Your task to perform on an android device: allow cookies in the chrome app Image 0: 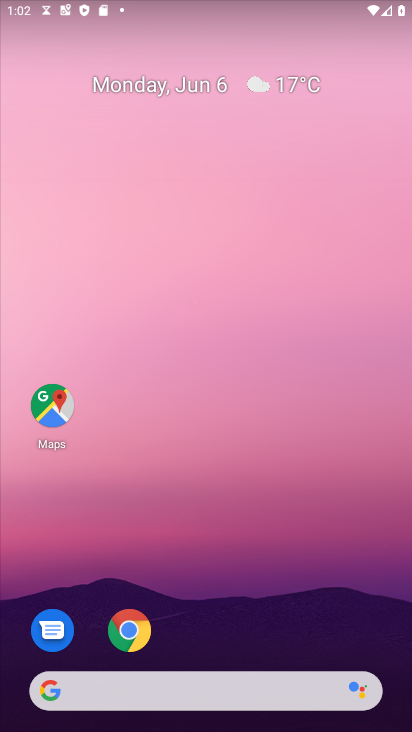
Step 0: drag from (221, 124) to (167, 80)
Your task to perform on an android device: allow cookies in the chrome app Image 1: 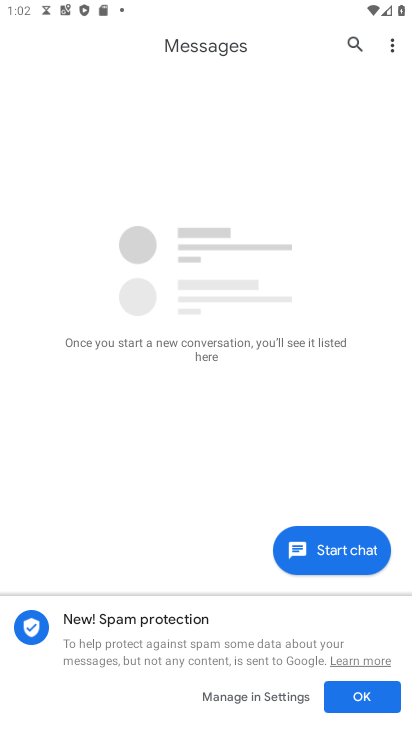
Step 1: press back button
Your task to perform on an android device: allow cookies in the chrome app Image 2: 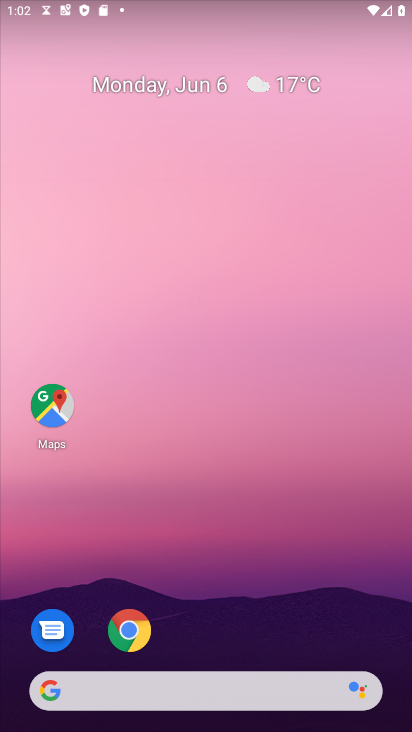
Step 2: drag from (251, 711) to (118, 18)
Your task to perform on an android device: allow cookies in the chrome app Image 3: 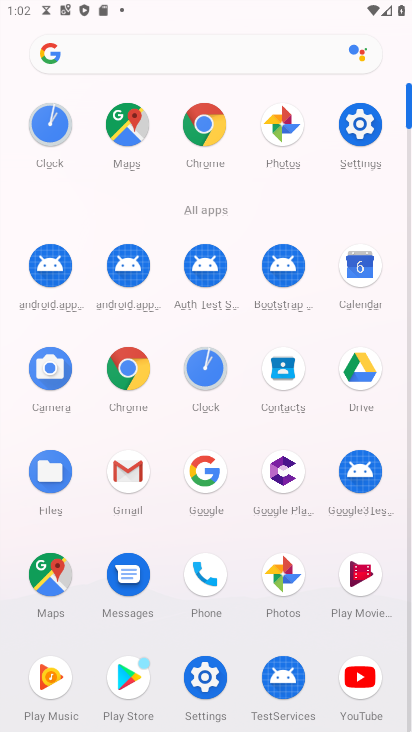
Step 3: click (201, 124)
Your task to perform on an android device: allow cookies in the chrome app Image 4: 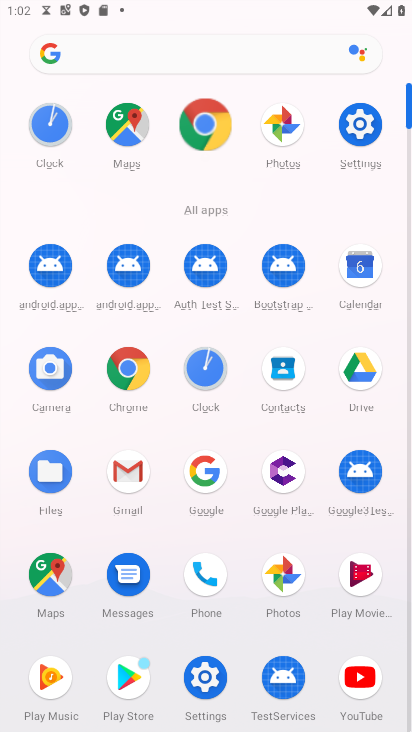
Step 4: click (202, 125)
Your task to perform on an android device: allow cookies in the chrome app Image 5: 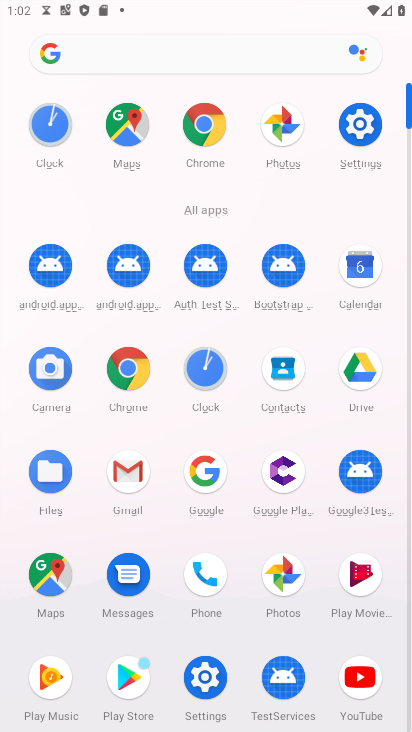
Step 5: click (202, 125)
Your task to perform on an android device: allow cookies in the chrome app Image 6: 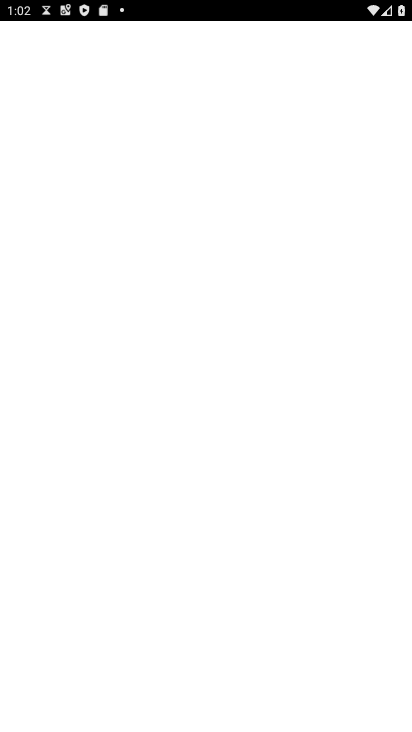
Step 6: click (203, 125)
Your task to perform on an android device: allow cookies in the chrome app Image 7: 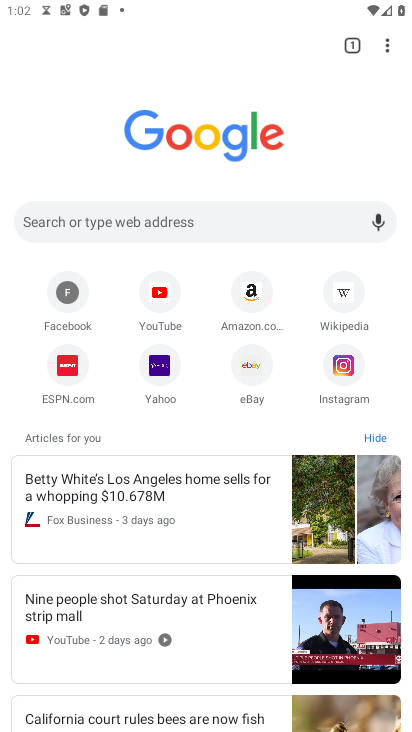
Step 7: click (397, 31)
Your task to perform on an android device: allow cookies in the chrome app Image 8: 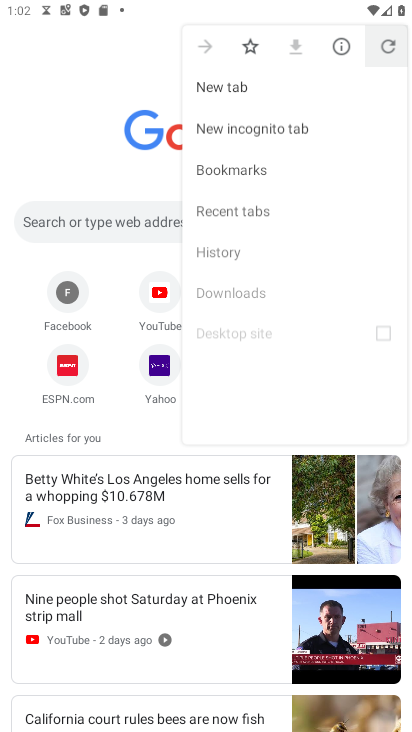
Step 8: drag from (380, 54) to (222, 379)
Your task to perform on an android device: allow cookies in the chrome app Image 9: 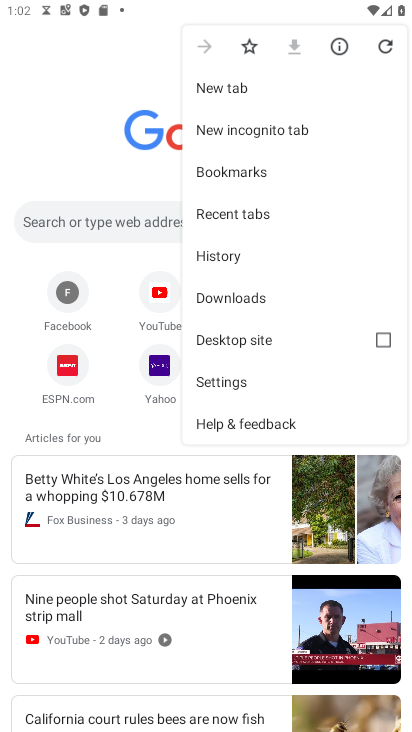
Step 9: click (221, 380)
Your task to perform on an android device: allow cookies in the chrome app Image 10: 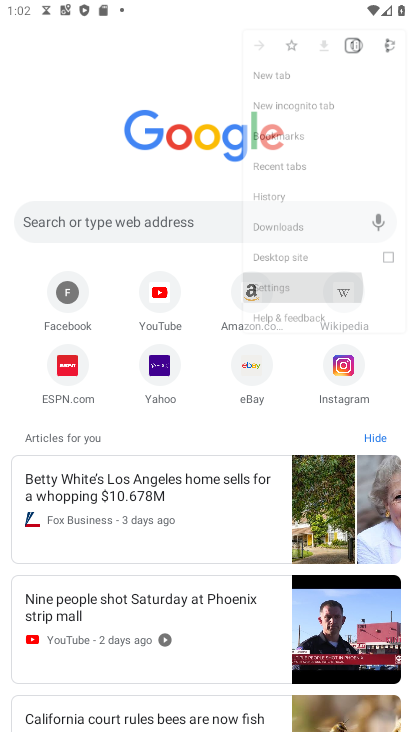
Step 10: click (224, 363)
Your task to perform on an android device: allow cookies in the chrome app Image 11: 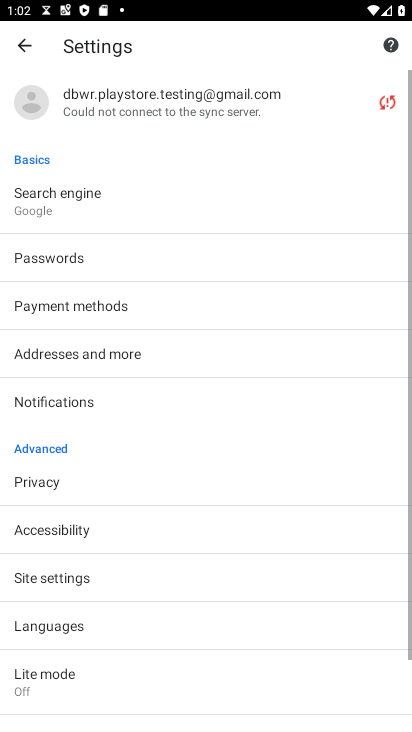
Step 11: drag from (183, 466) to (106, 50)
Your task to perform on an android device: allow cookies in the chrome app Image 12: 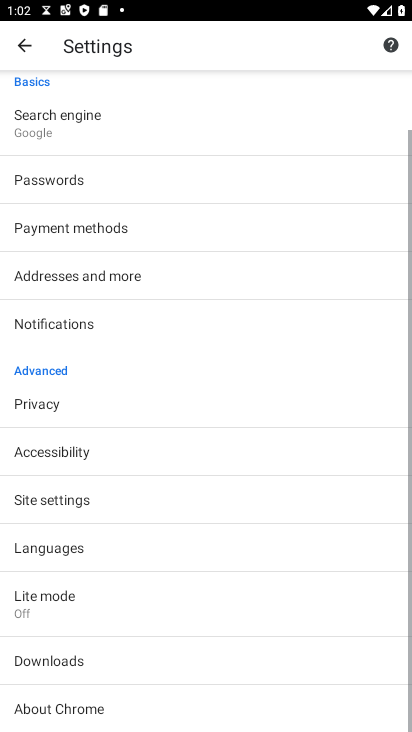
Step 12: drag from (147, 420) to (86, 120)
Your task to perform on an android device: allow cookies in the chrome app Image 13: 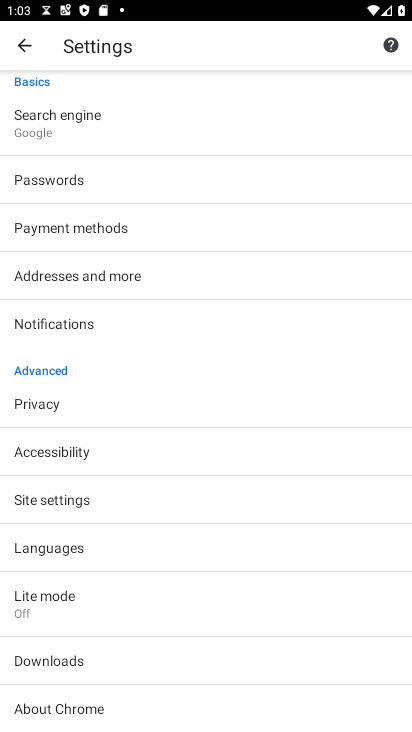
Step 13: click (43, 491)
Your task to perform on an android device: allow cookies in the chrome app Image 14: 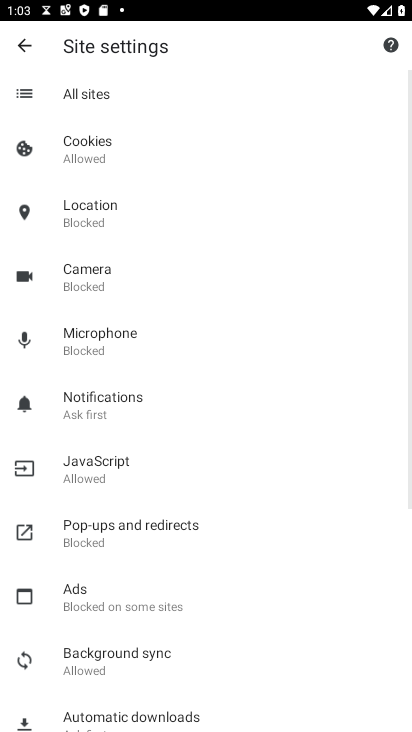
Step 14: click (88, 143)
Your task to perform on an android device: allow cookies in the chrome app Image 15: 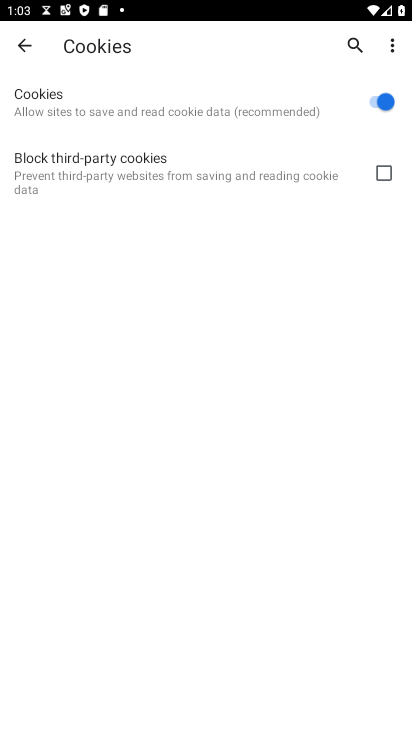
Step 15: click (70, 145)
Your task to perform on an android device: allow cookies in the chrome app Image 16: 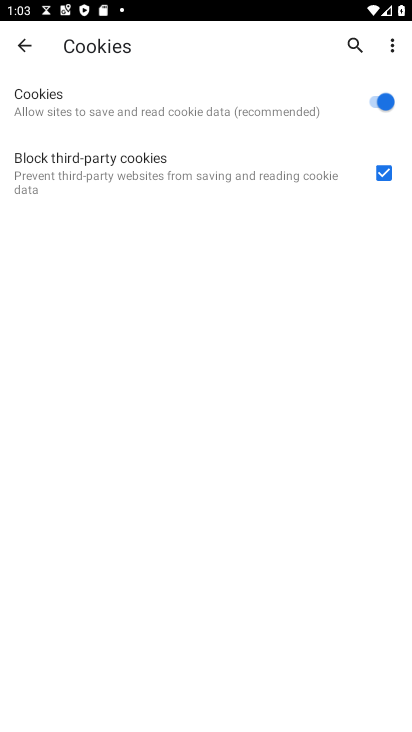
Step 16: click (23, 51)
Your task to perform on an android device: allow cookies in the chrome app Image 17: 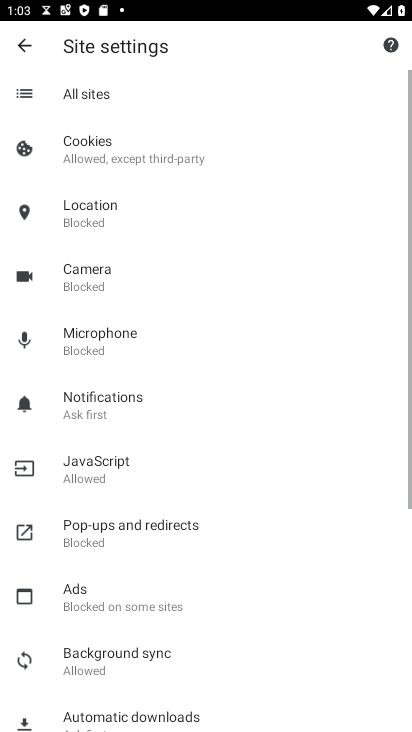
Step 17: task complete